Your task to perform on an android device: toggle airplane mode Image 0: 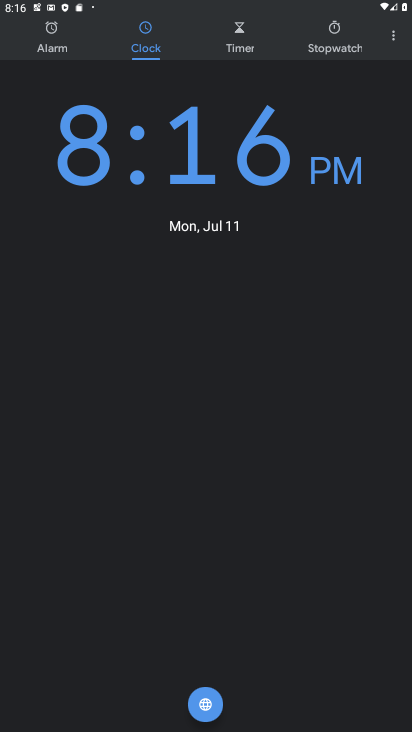
Step 0: press back button
Your task to perform on an android device: toggle airplane mode Image 1: 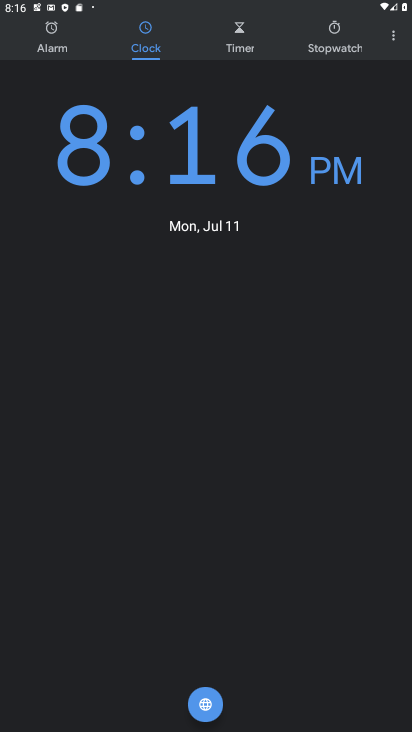
Step 1: press back button
Your task to perform on an android device: toggle airplane mode Image 2: 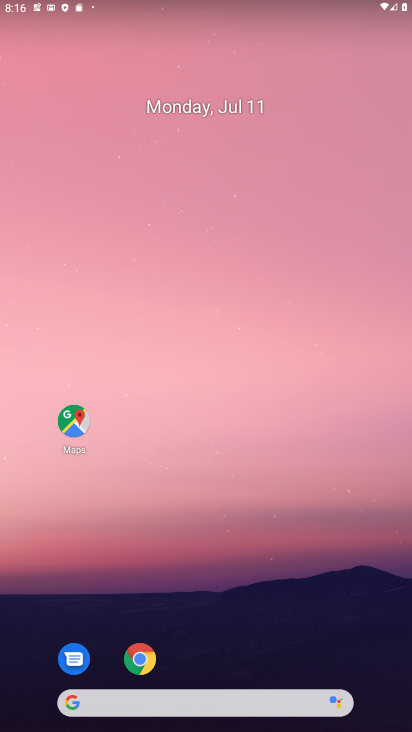
Step 2: drag from (234, 721) to (160, 187)
Your task to perform on an android device: toggle airplane mode Image 3: 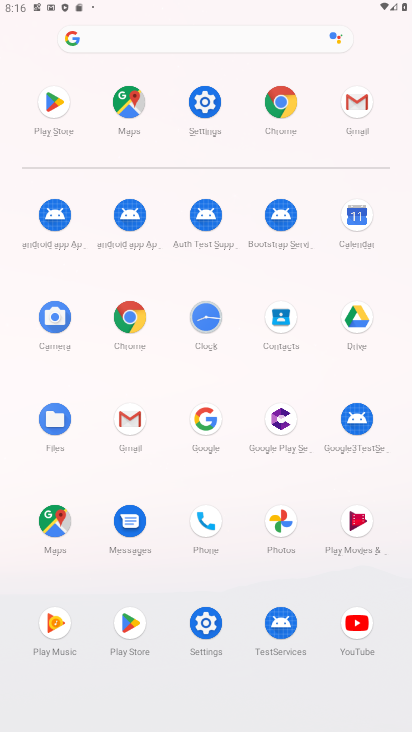
Step 3: click (199, 102)
Your task to perform on an android device: toggle airplane mode Image 4: 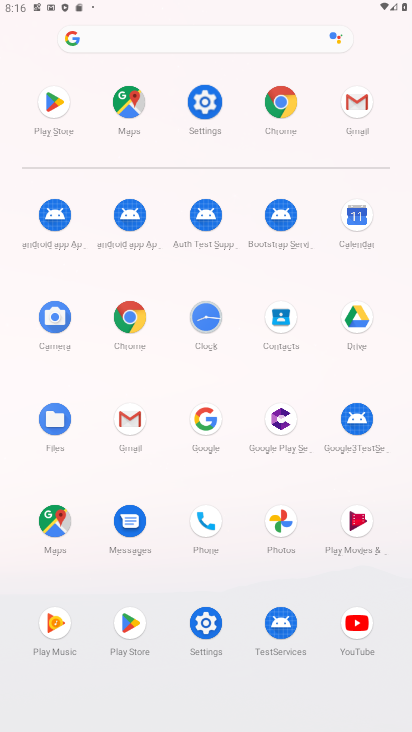
Step 4: click (198, 102)
Your task to perform on an android device: toggle airplane mode Image 5: 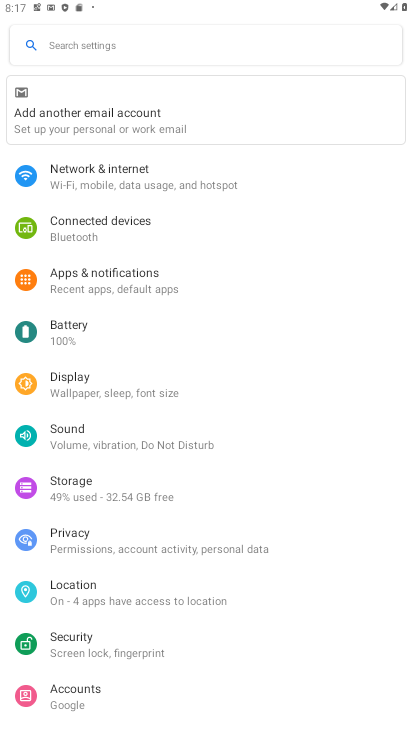
Step 5: click (94, 174)
Your task to perform on an android device: toggle airplane mode Image 6: 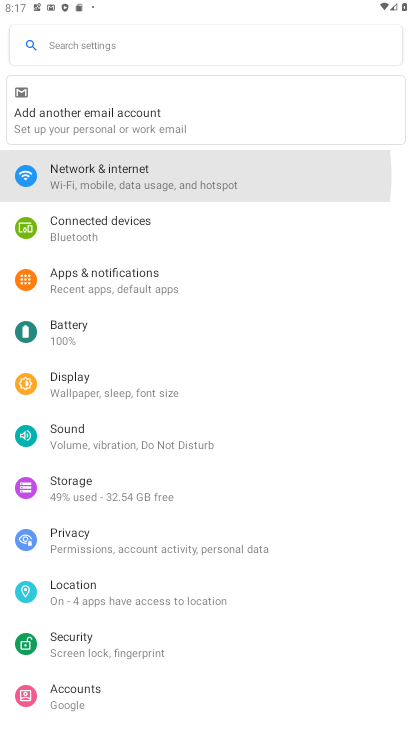
Step 6: click (94, 174)
Your task to perform on an android device: toggle airplane mode Image 7: 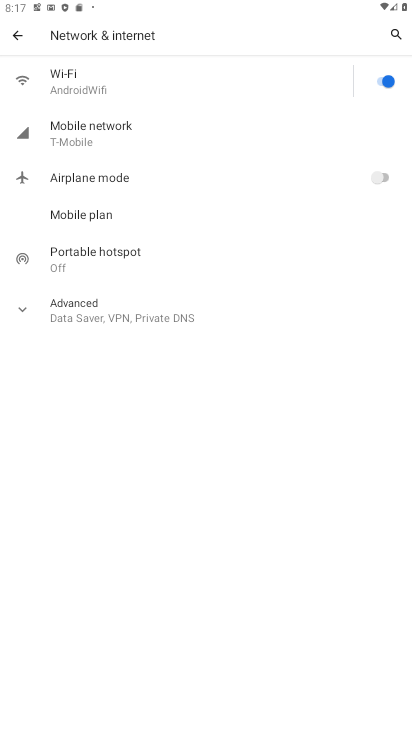
Step 7: click (388, 165)
Your task to perform on an android device: toggle airplane mode Image 8: 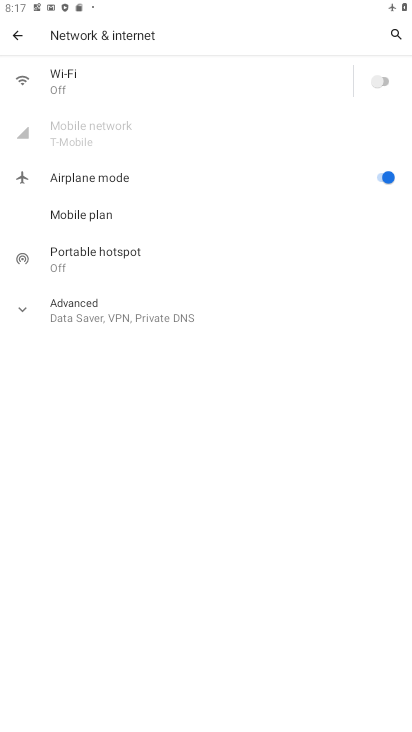
Step 8: task complete